Your task to perform on an android device: Go to location settings Image 0: 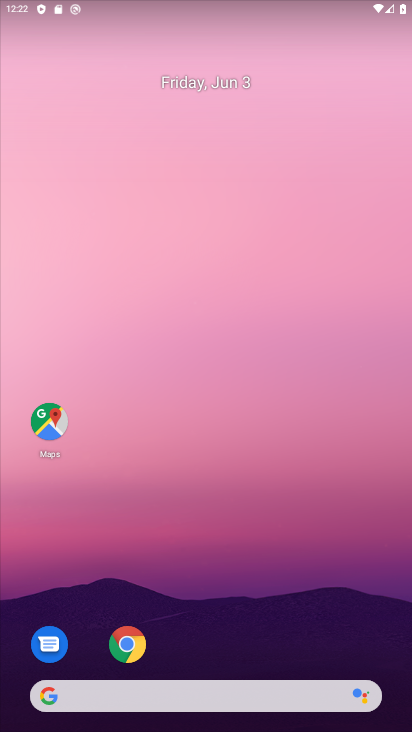
Step 0: drag from (200, 724) to (200, 113)
Your task to perform on an android device: Go to location settings Image 1: 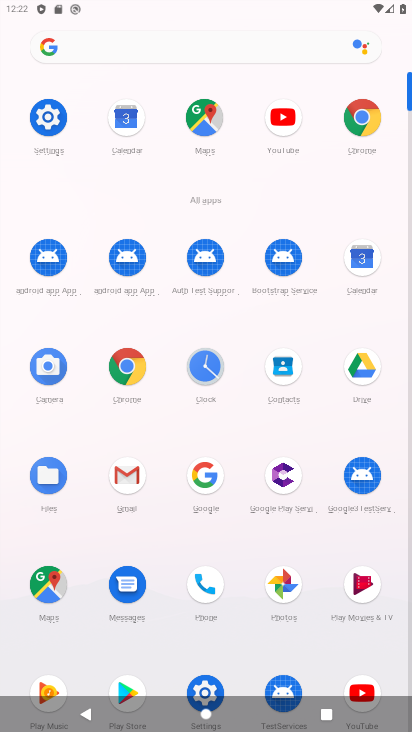
Step 1: click (51, 117)
Your task to perform on an android device: Go to location settings Image 2: 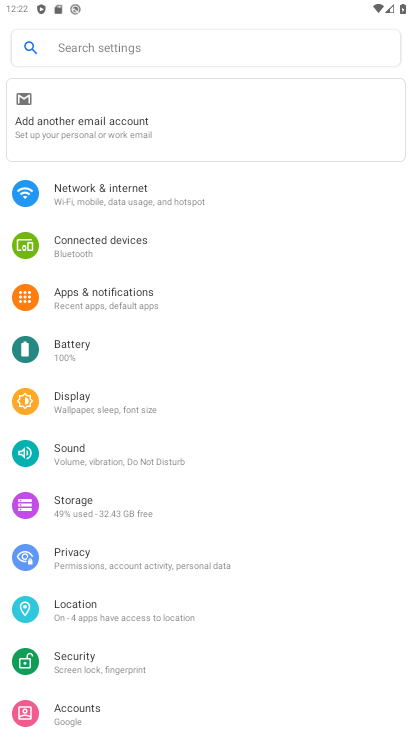
Step 2: click (79, 607)
Your task to perform on an android device: Go to location settings Image 3: 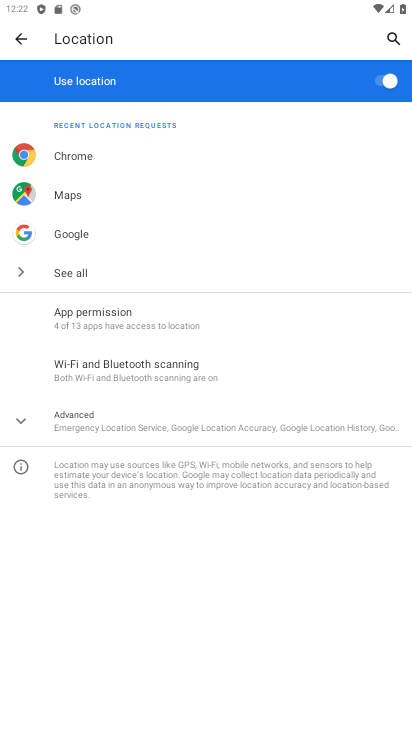
Step 3: task complete